Your task to perform on an android device: Open the web browser Image 0: 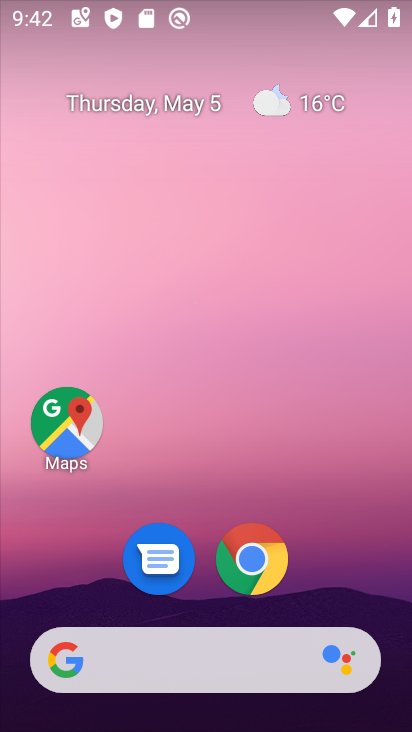
Step 0: click (254, 567)
Your task to perform on an android device: Open the web browser Image 1: 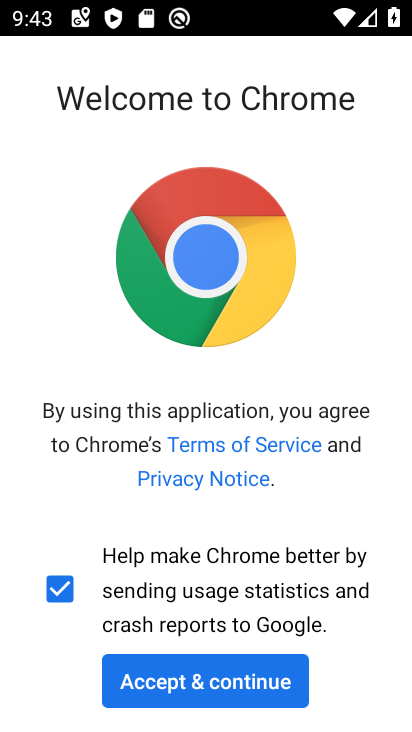
Step 1: click (213, 679)
Your task to perform on an android device: Open the web browser Image 2: 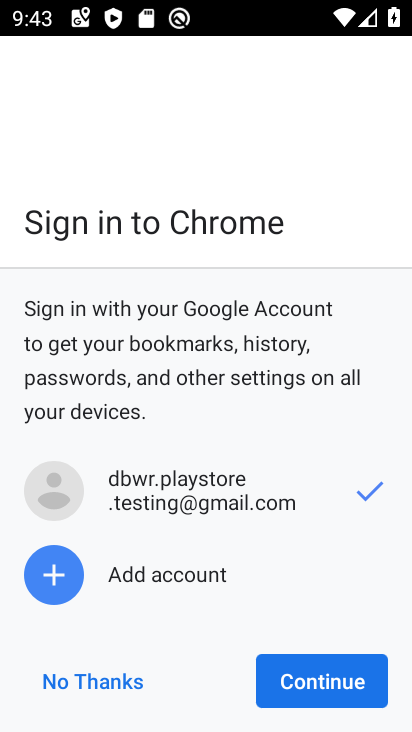
Step 2: click (350, 679)
Your task to perform on an android device: Open the web browser Image 3: 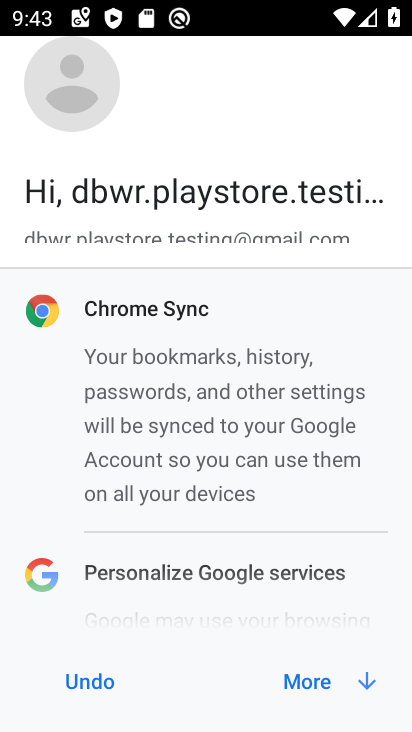
Step 3: click (350, 679)
Your task to perform on an android device: Open the web browser Image 4: 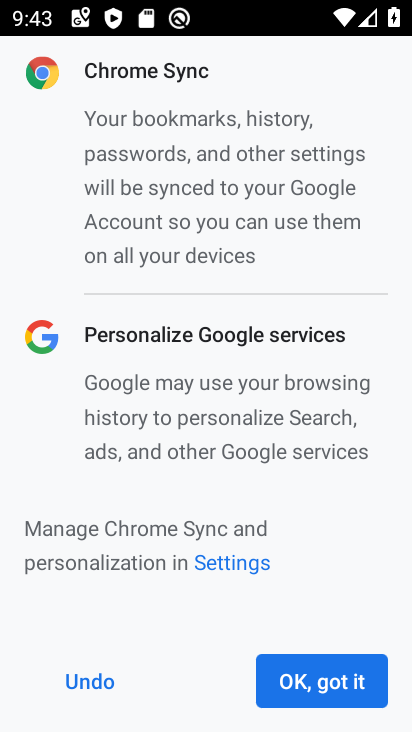
Step 4: click (349, 680)
Your task to perform on an android device: Open the web browser Image 5: 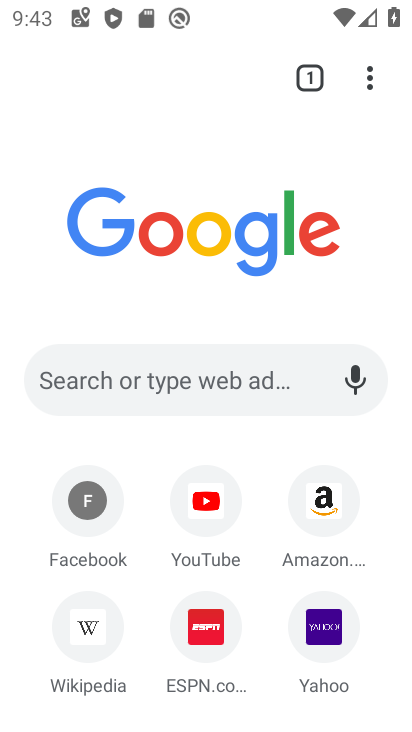
Step 5: task complete